Your task to perform on an android device: open device folders in google photos Image 0: 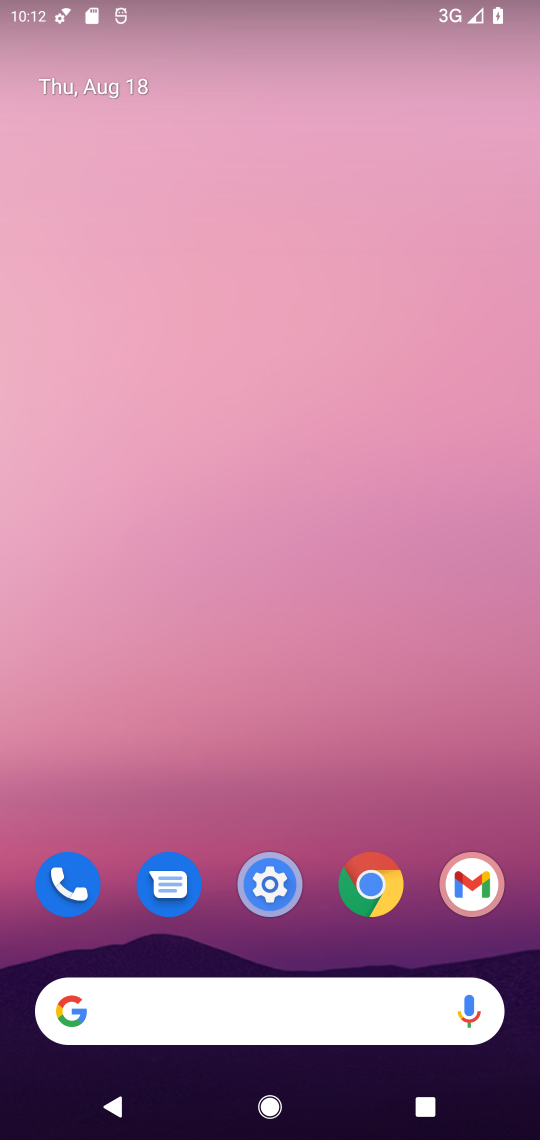
Step 0: drag from (223, 953) to (271, 230)
Your task to perform on an android device: open device folders in google photos Image 1: 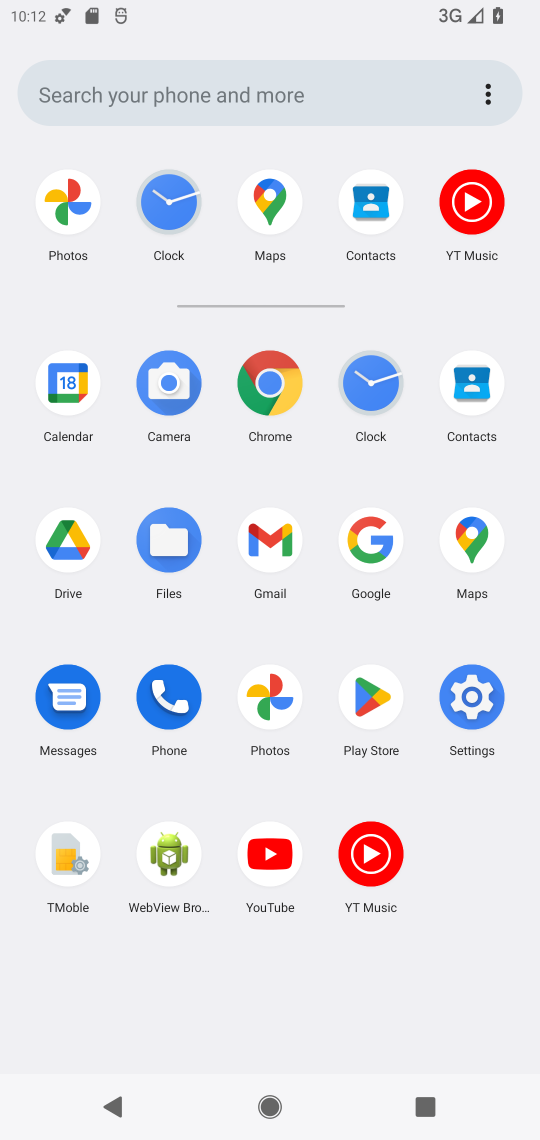
Step 1: click (28, 194)
Your task to perform on an android device: open device folders in google photos Image 2: 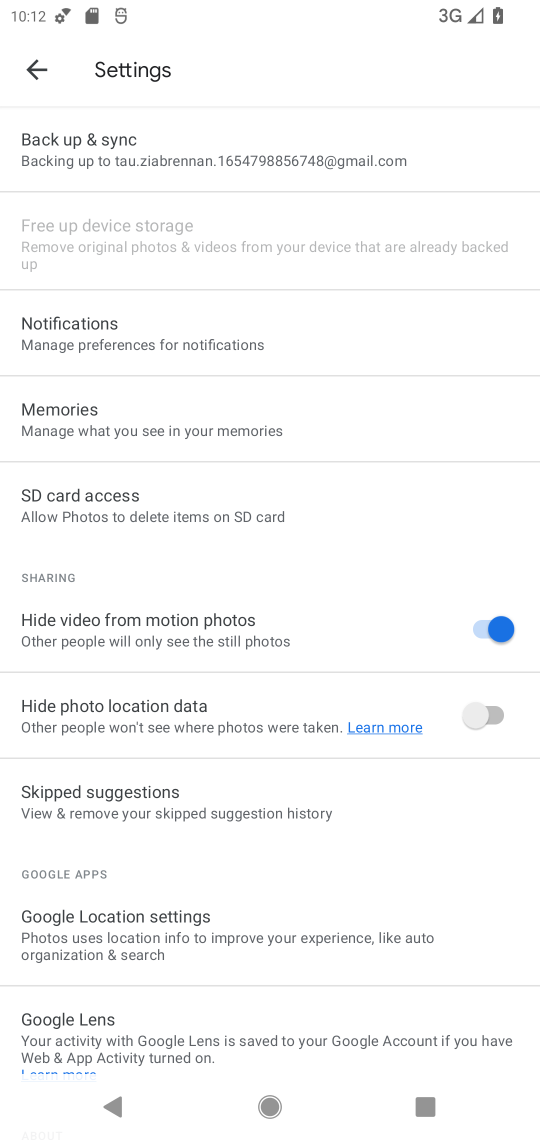
Step 2: task complete